Your task to perform on an android device: Open Reddit.com Image 0: 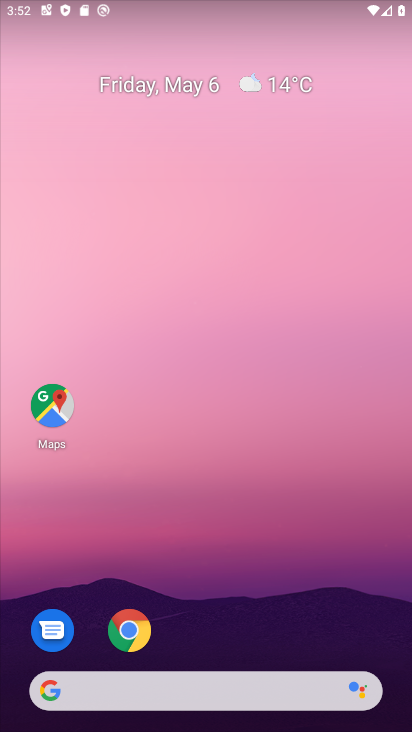
Step 0: click (156, 690)
Your task to perform on an android device: Open Reddit.com Image 1: 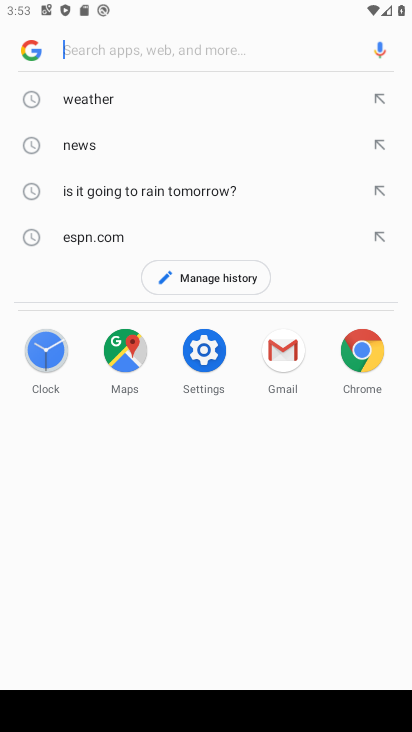
Step 1: type "reddit.com"
Your task to perform on an android device: Open Reddit.com Image 2: 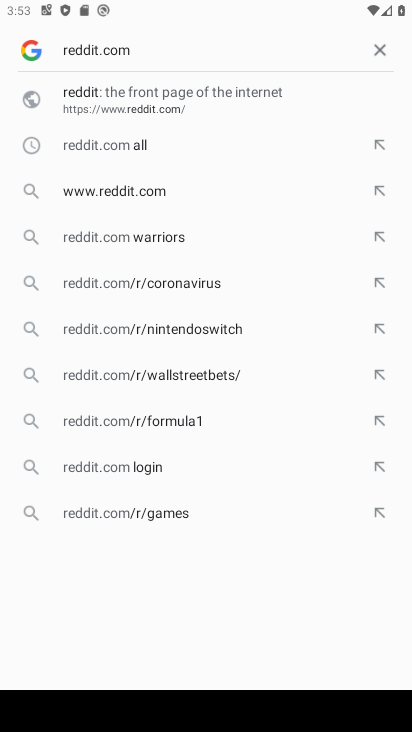
Step 2: click (206, 110)
Your task to perform on an android device: Open Reddit.com Image 3: 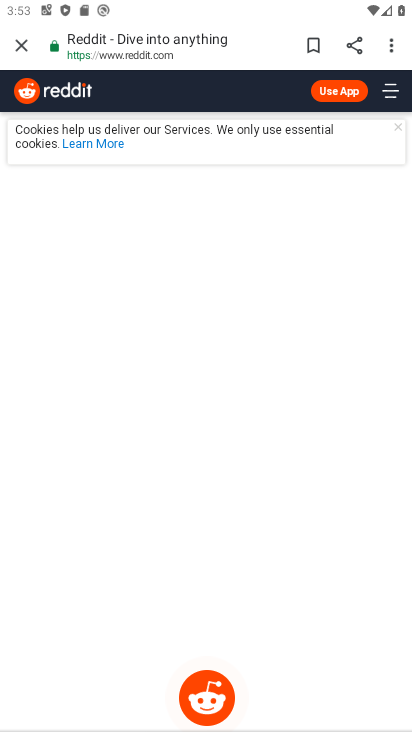
Step 3: click (226, 569)
Your task to perform on an android device: Open Reddit.com Image 4: 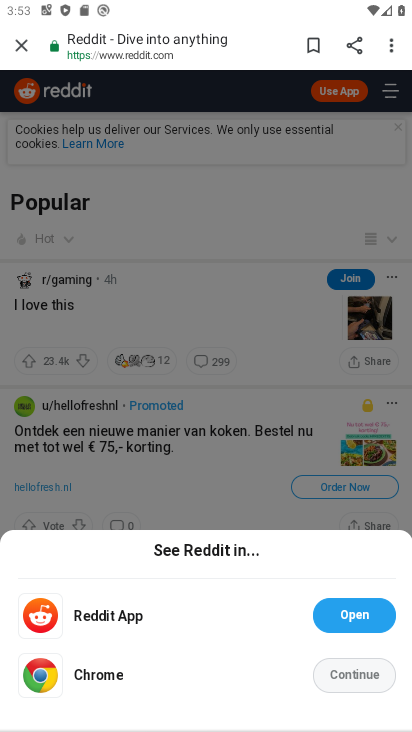
Step 4: task complete